Your task to perform on an android device: change the clock display to analog Image 0: 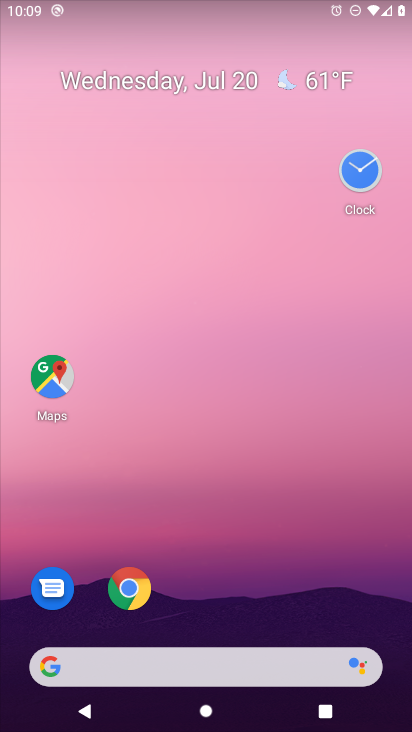
Step 0: drag from (30, 697) to (204, 40)
Your task to perform on an android device: change the clock display to analog Image 1: 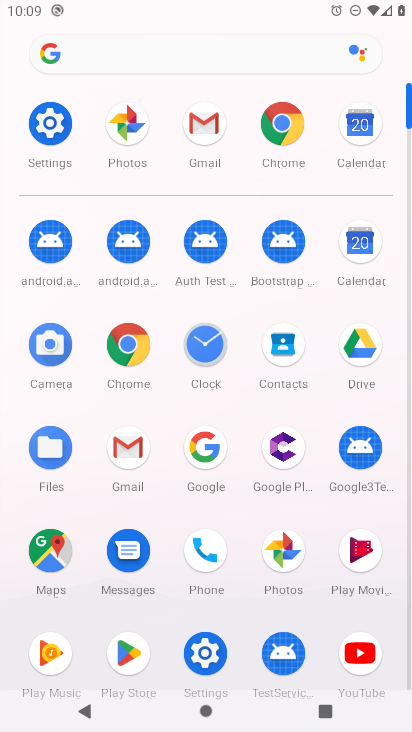
Step 1: click (199, 647)
Your task to perform on an android device: change the clock display to analog Image 2: 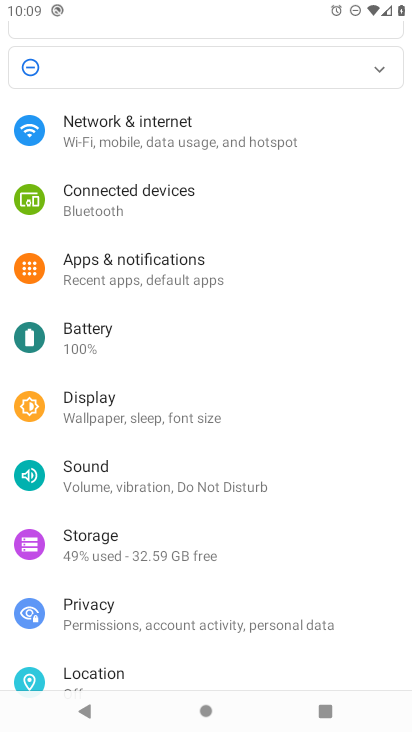
Step 2: press home button
Your task to perform on an android device: change the clock display to analog Image 3: 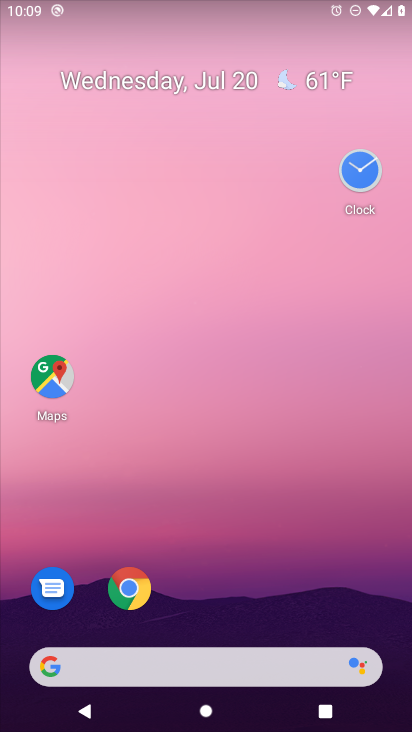
Step 3: drag from (55, 672) to (356, 2)
Your task to perform on an android device: change the clock display to analog Image 4: 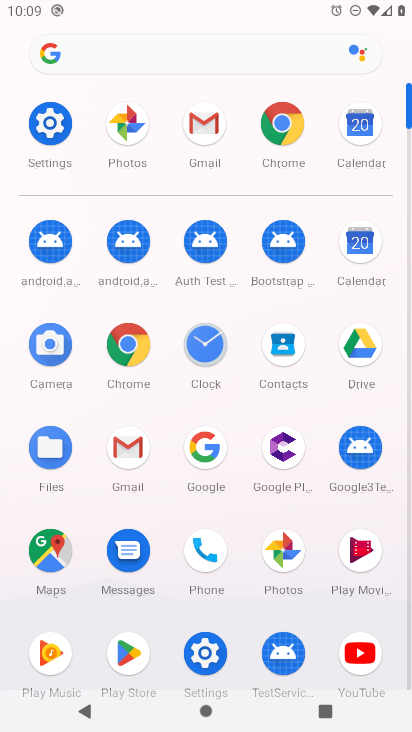
Step 4: click (214, 357)
Your task to perform on an android device: change the clock display to analog Image 5: 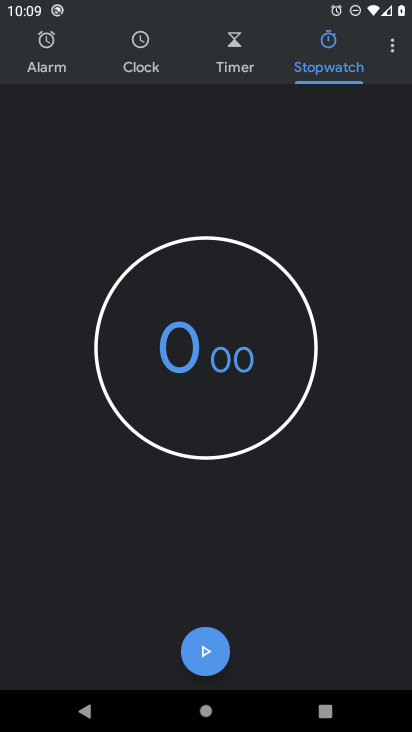
Step 5: click (136, 54)
Your task to perform on an android device: change the clock display to analog Image 6: 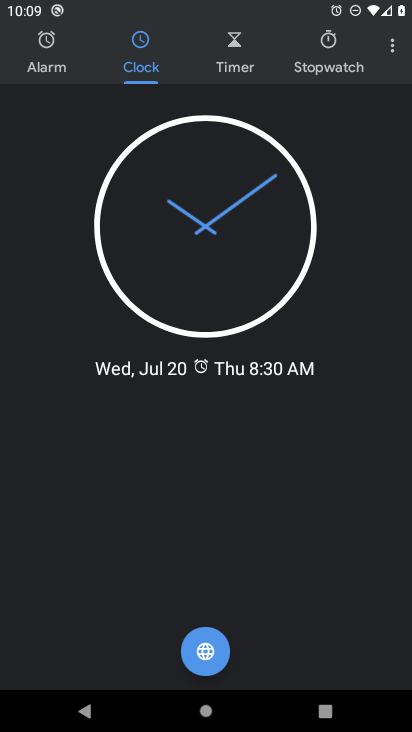
Step 6: click (391, 38)
Your task to perform on an android device: change the clock display to analog Image 7: 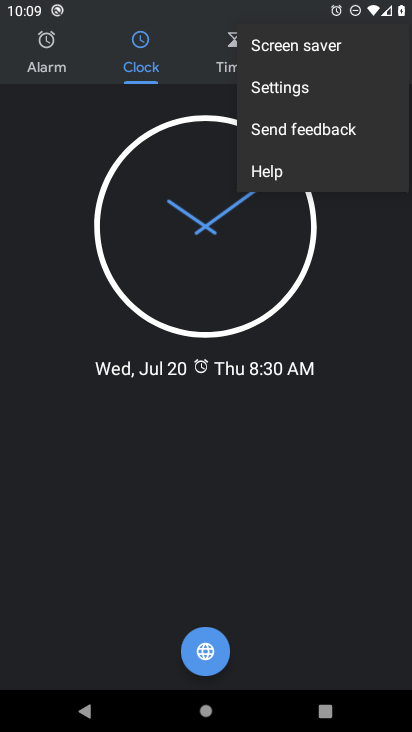
Step 7: click (294, 93)
Your task to perform on an android device: change the clock display to analog Image 8: 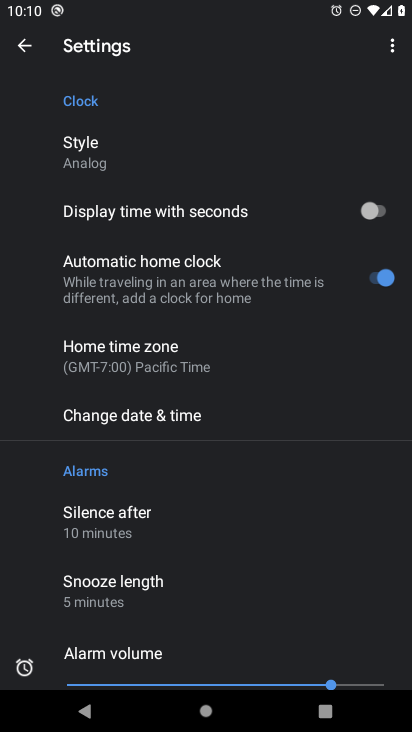
Step 8: task complete